Your task to perform on an android device: Go to eBay Image 0: 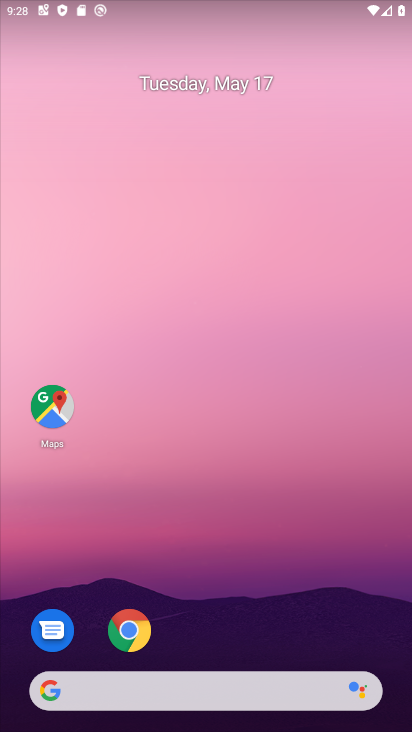
Step 0: click (128, 629)
Your task to perform on an android device: Go to eBay Image 1: 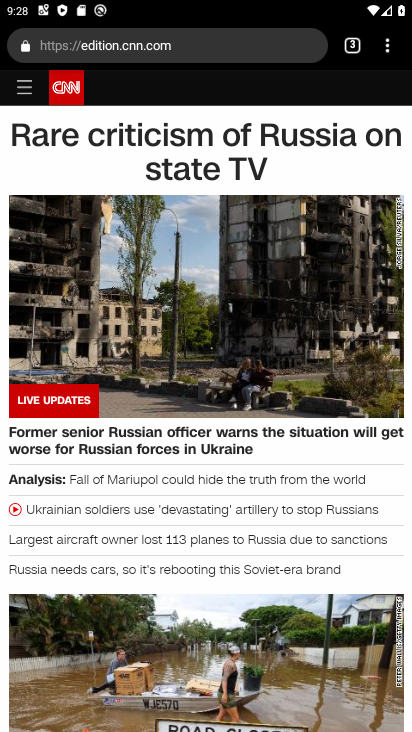
Step 1: click (358, 42)
Your task to perform on an android device: Go to eBay Image 2: 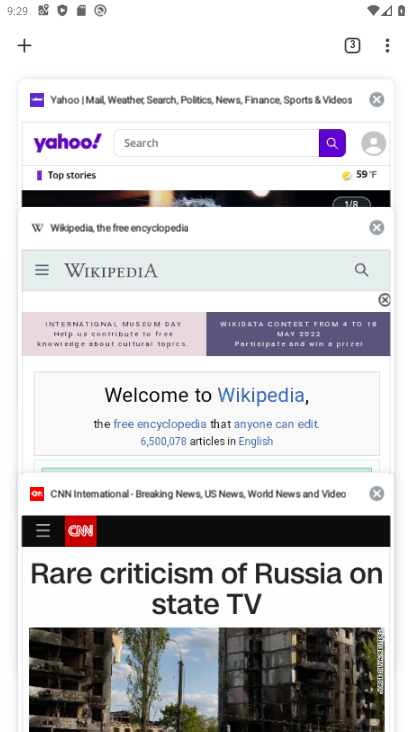
Step 2: click (344, 48)
Your task to perform on an android device: Go to eBay Image 3: 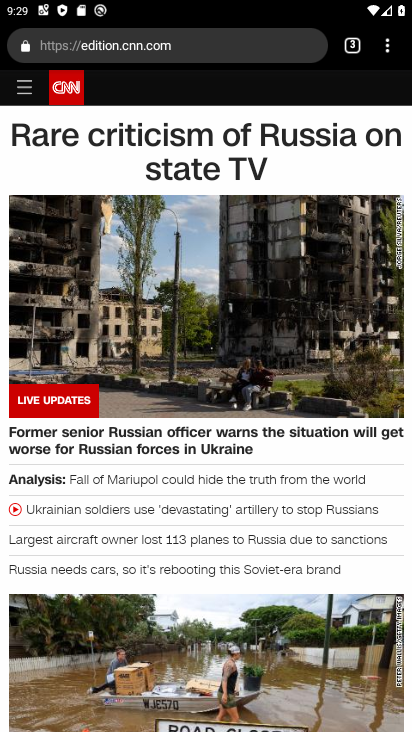
Step 3: click (344, 48)
Your task to perform on an android device: Go to eBay Image 4: 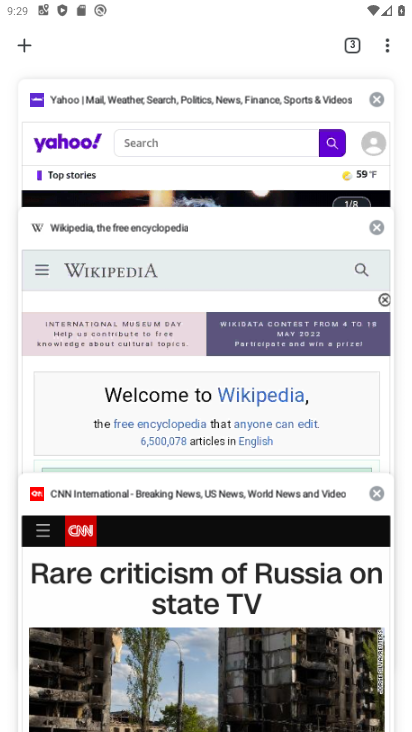
Step 4: click (29, 47)
Your task to perform on an android device: Go to eBay Image 5: 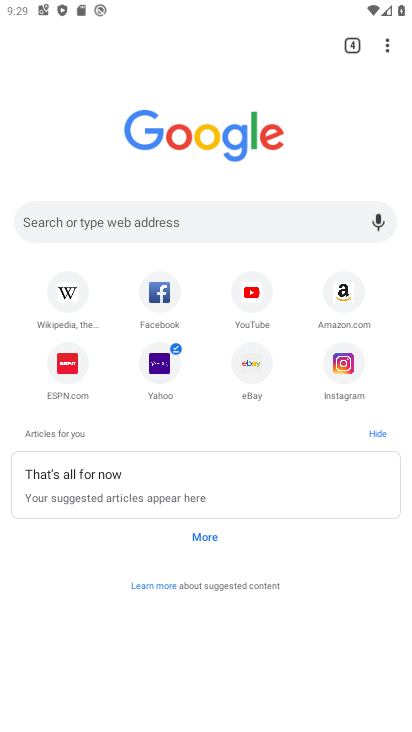
Step 5: click (258, 385)
Your task to perform on an android device: Go to eBay Image 6: 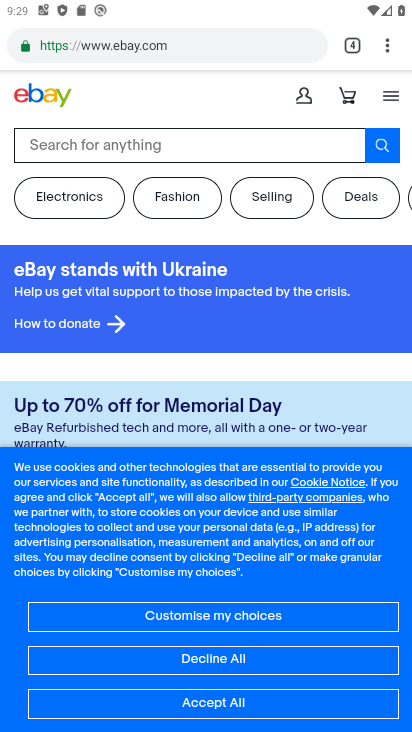
Step 6: task complete